Your task to perform on an android device: Go to privacy settings Image 0: 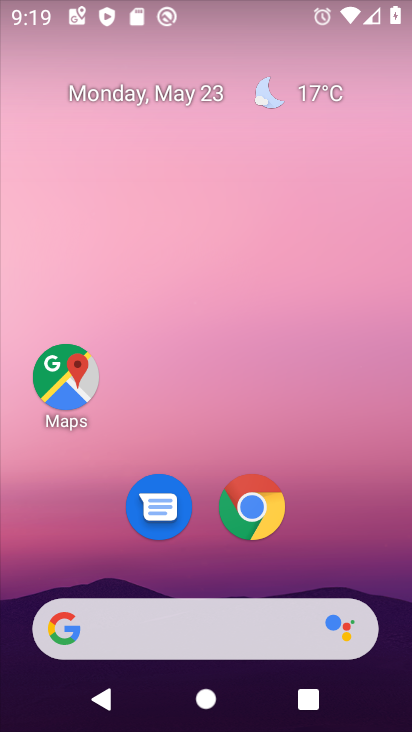
Step 0: drag from (377, 599) to (319, 5)
Your task to perform on an android device: Go to privacy settings Image 1: 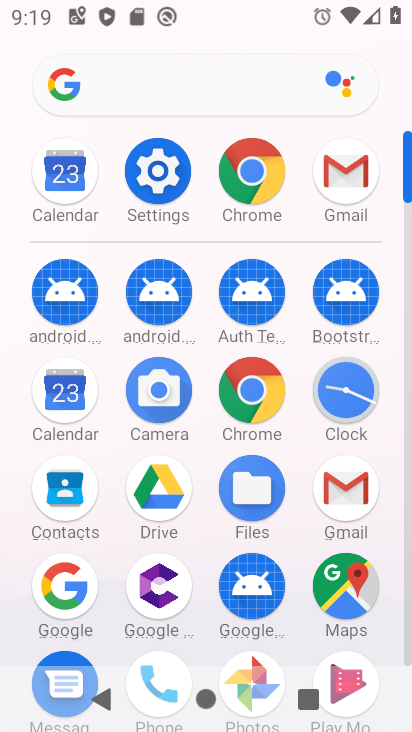
Step 1: click (150, 173)
Your task to perform on an android device: Go to privacy settings Image 2: 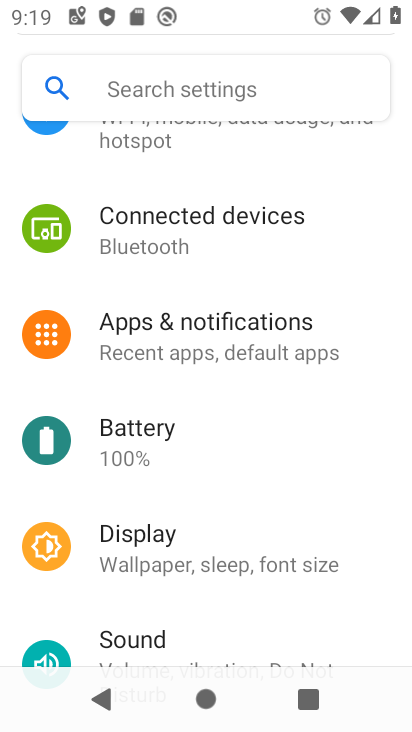
Step 2: drag from (339, 316) to (301, 181)
Your task to perform on an android device: Go to privacy settings Image 3: 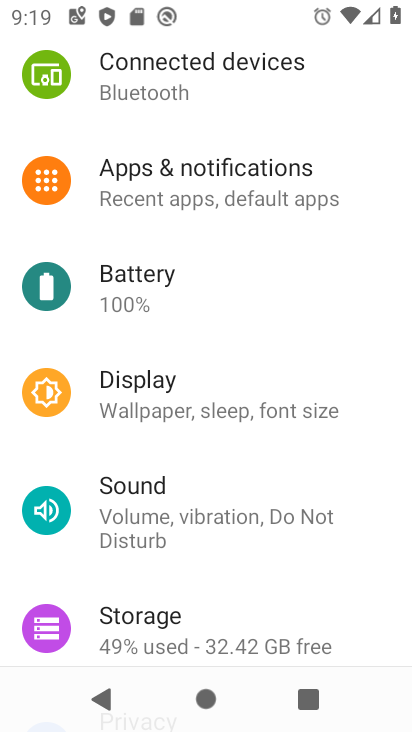
Step 3: drag from (336, 444) to (318, 194)
Your task to perform on an android device: Go to privacy settings Image 4: 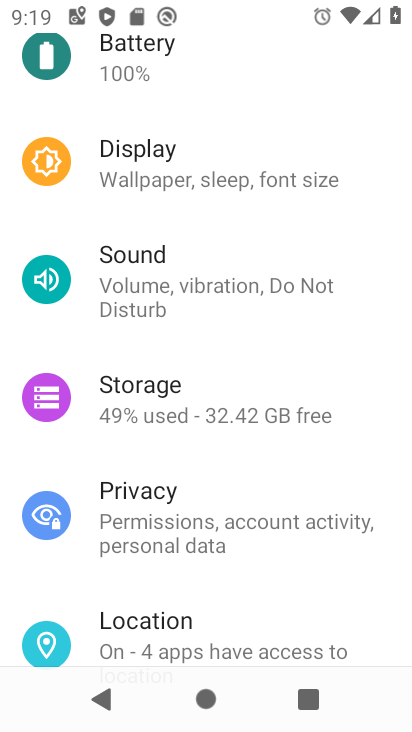
Step 4: click (152, 506)
Your task to perform on an android device: Go to privacy settings Image 5: 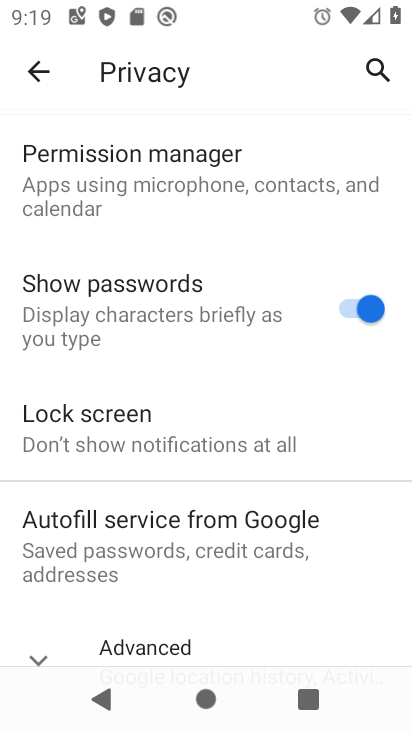
Step 5: task complete